Your task to perform on an android device: turn off smart reply in the gmail app Image 0: 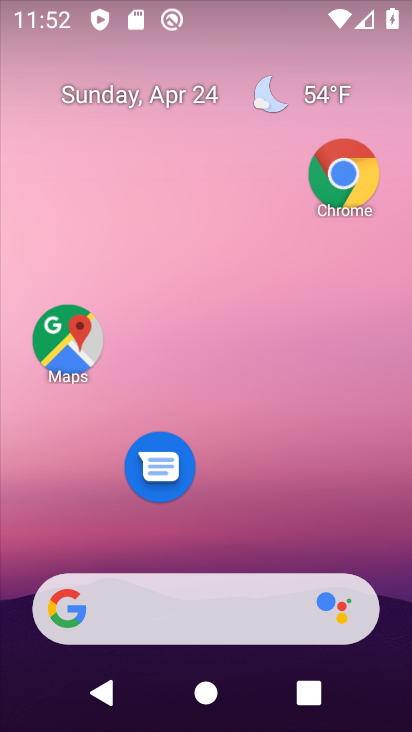
Step 0: drag from (221, 519) to (248, 139)
Your task to perform on an android device: turn off smart reply in the gmail app Image 1: 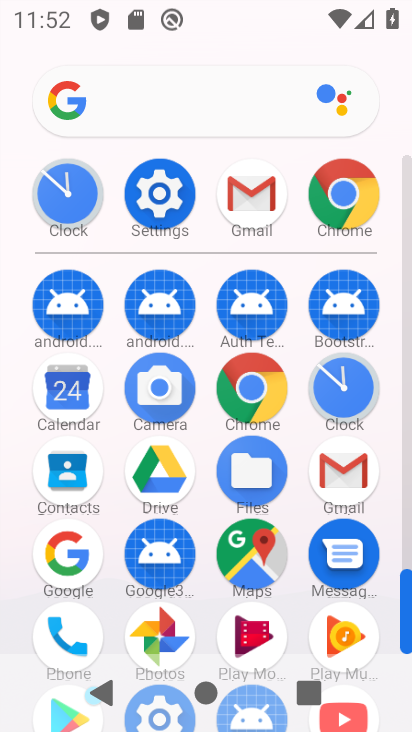
Step 1: click (338, 462)
Your task to perform on an android device: turn off smart reply in the gmail app Image 2: 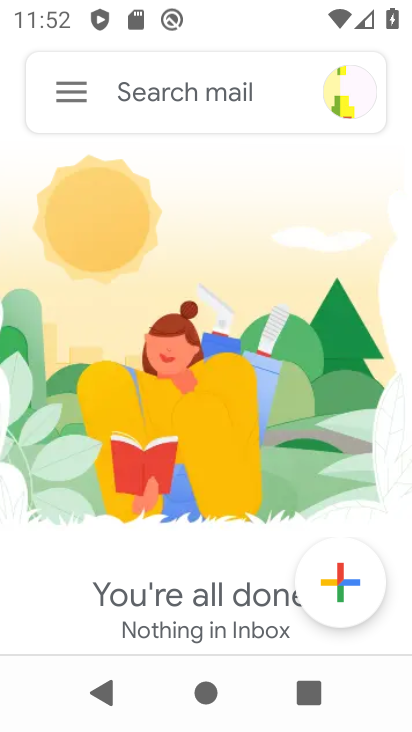
Step 2: drag from (111, 563) to (264, 157)
Your task to perform on an android device: turn off smart reply in the gmail app Image 3: 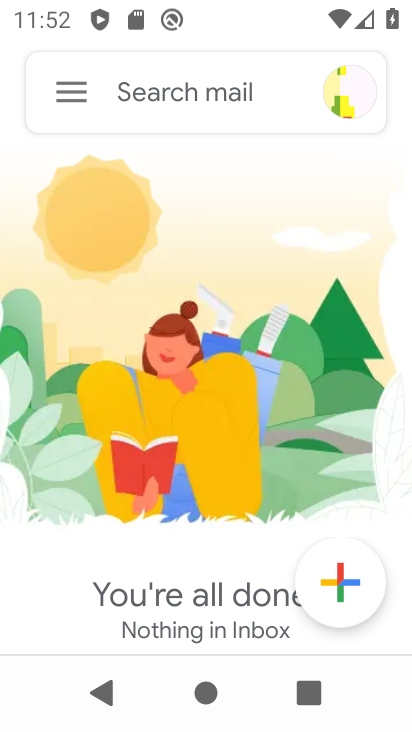
Step 3: click (78, 85)
Your task to perform on an android device: turn off smart reply in the gmail app Image 4: 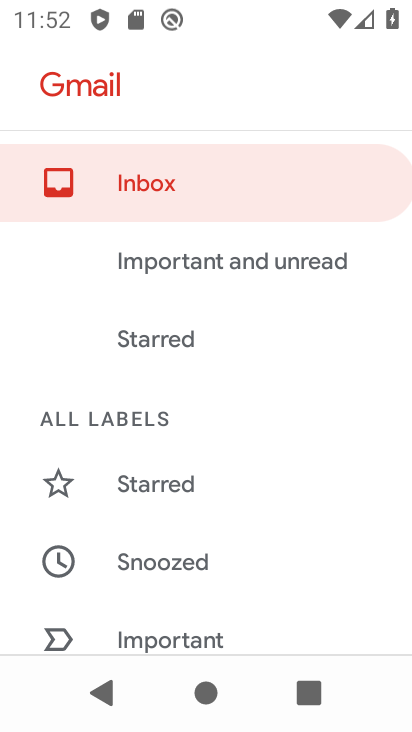
Step 4: drag from (203, 477) to (242, 123)
Your task to perform on an android device: turn off smart reply in the gmail app Image 5: 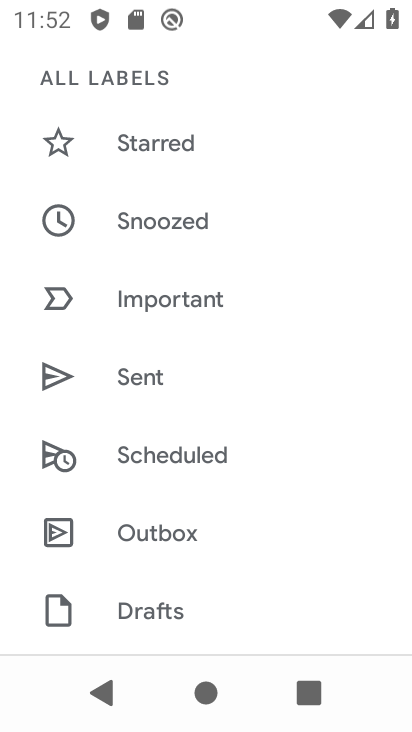
Step 5: drag from (196, 575) to (320, 105)
Your task to perform on an android device: turn off smart reply in the gmail app Image 6: 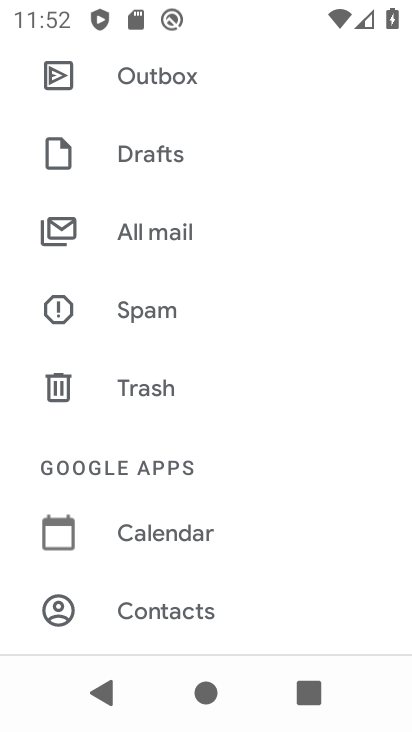
Step 6: drag from (181, 541) to (270, 50)
Your task to perform on an android device: turn off smart reply in the gmail app Image 7: 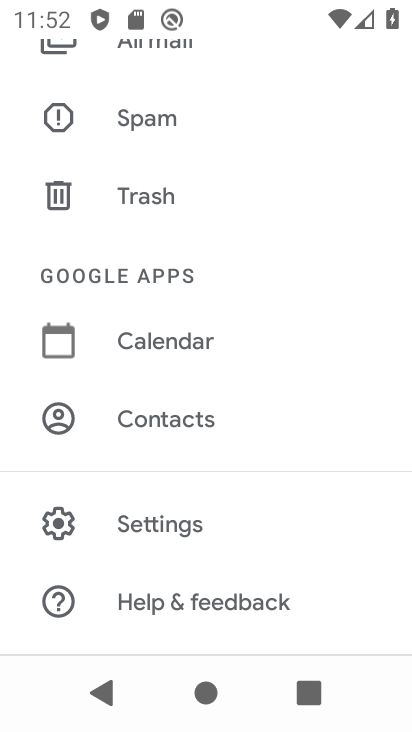
Step 7: click (175, 532)
Your task to perform on an android device: turn off smart reply in the gmail app Image 8: 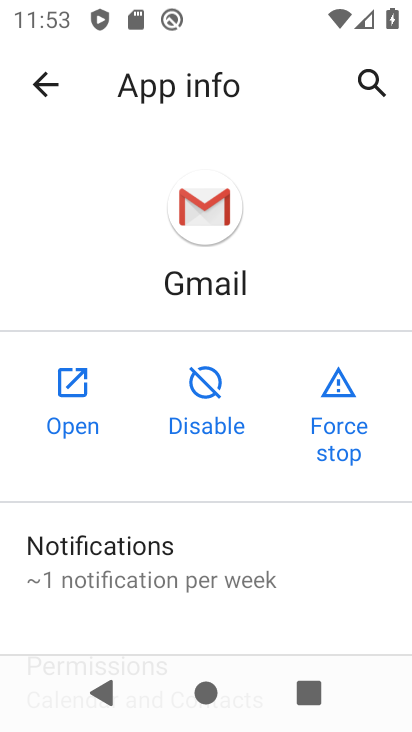
Step 8: click (63, 398)
Your task to perform on an android device: turn off smart reply in the gmail app Image 9: 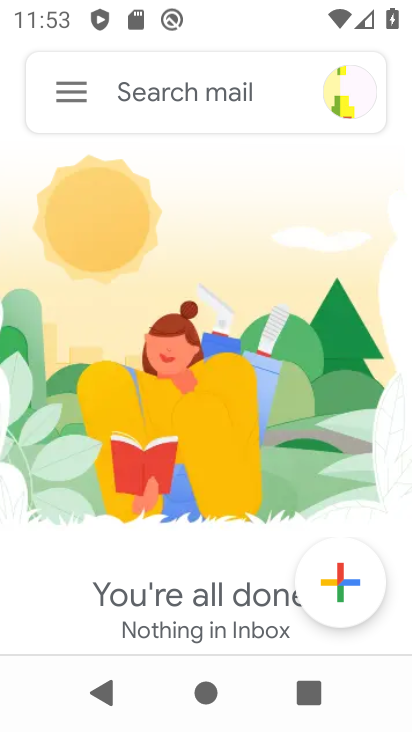
Step 9: drag from (194, 457) to (204, 115)
Your task to perform on an android device: turn off smart reply in the gmail app Image 10: 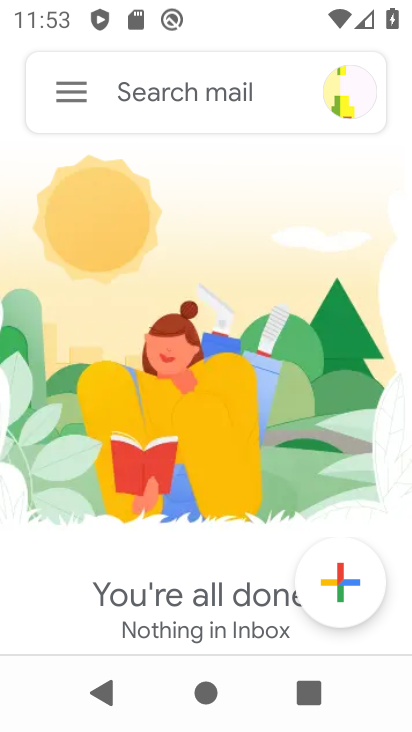
Step 10: click (57, 110)
Your task to perform on an android device: turn off smart reply in the gmail app Image 11: 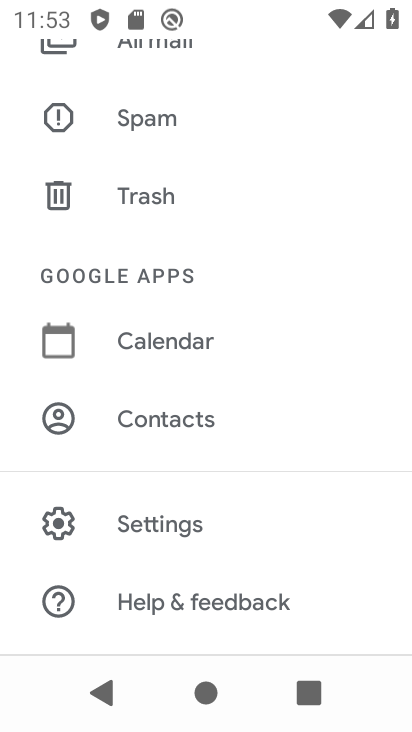
Step 11: click (180, 518)
Your task to perform on an android device: turn off smart reply in the gmail app Image 12: 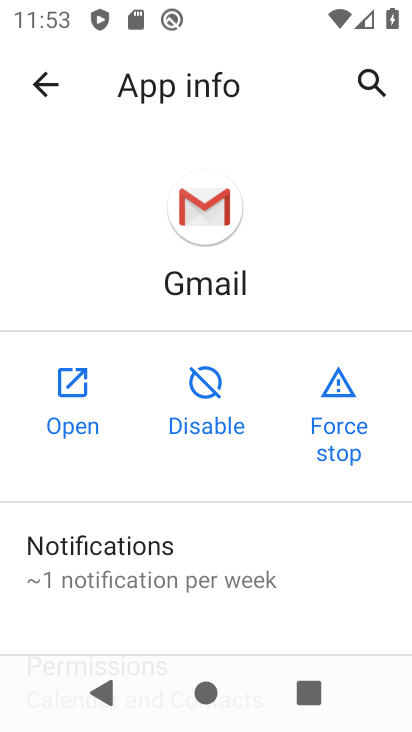
Step 12: click (68, 385)
Your task to perform on an android device: turn off smart reply in the gmail app Image 13: 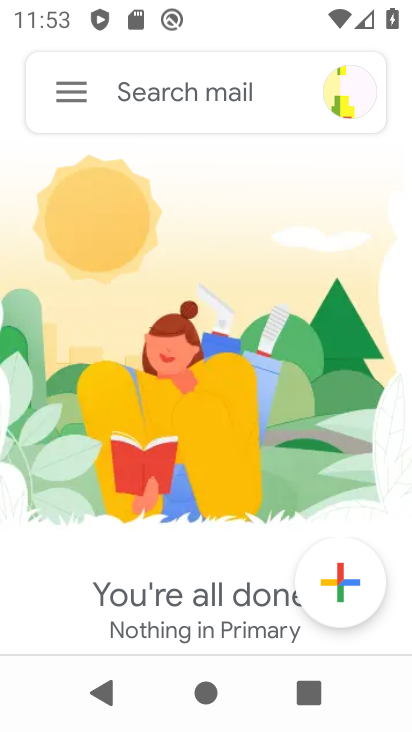
Step 13: click (67, 99)
Your task to perform on an android device: turn off smart reply in the gmail app Image 14: 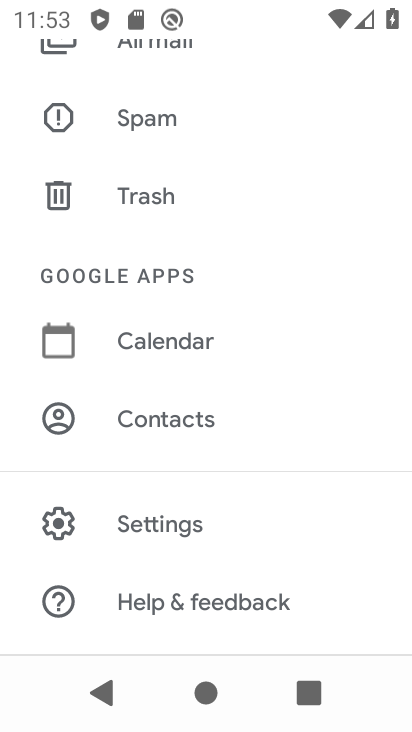
Step 14: click (191, 522)
Your task to perform on an android device: turn off smart reply in the gmail app Image 15: 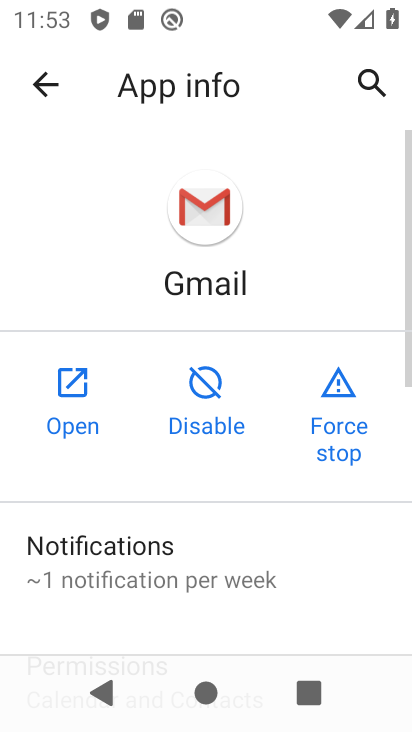
Step 15: click (61, 395)
Your task to perform on an android device: turn off smart reply in the gmail app Image 16: 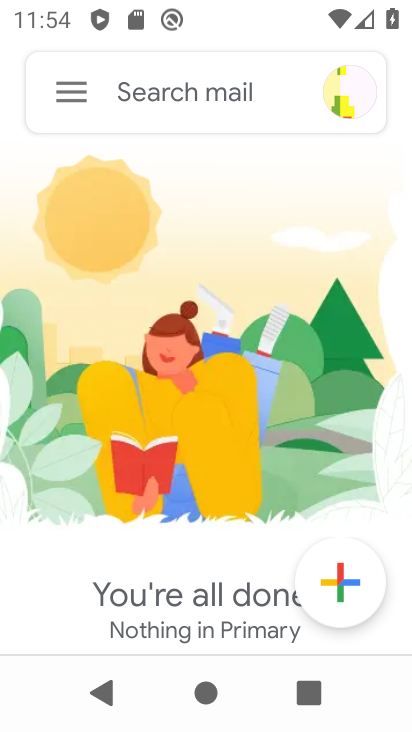
Step 16: click (84, 100)
Your task to perform on an android device: turn off smart reply in the gmail app Image 17: 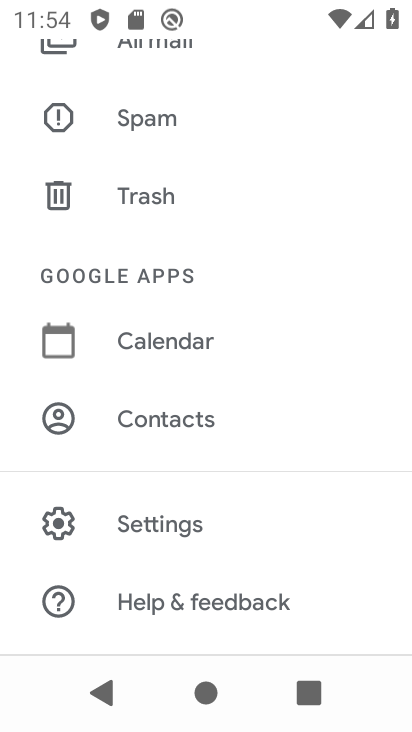
Step 17: click (179, 522)
Your task to perform on an android device: turn off smart reply in the gmail app Image 18: 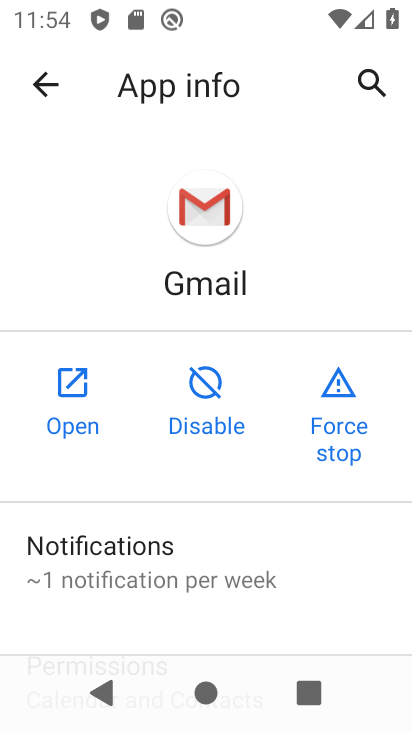
Step 18: click (65, 384)
Your task to perform on an android device: turn off smart reply in the gmail app Image 19: 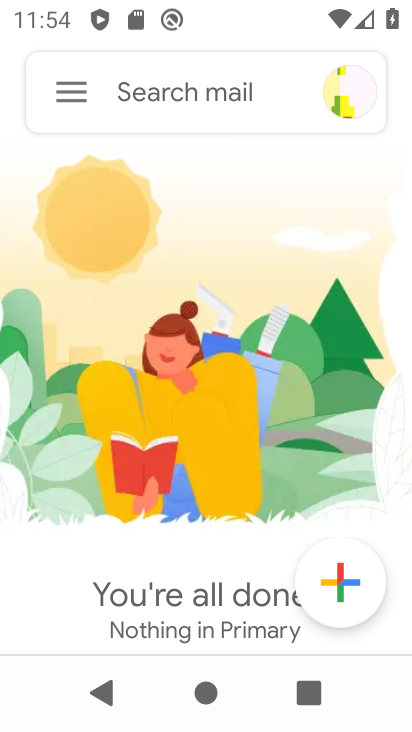
Step 19: drag from (246, 478) to (215, 191)
Your task to perform on an android device: turn off smart reply in the gmail app Image 20: 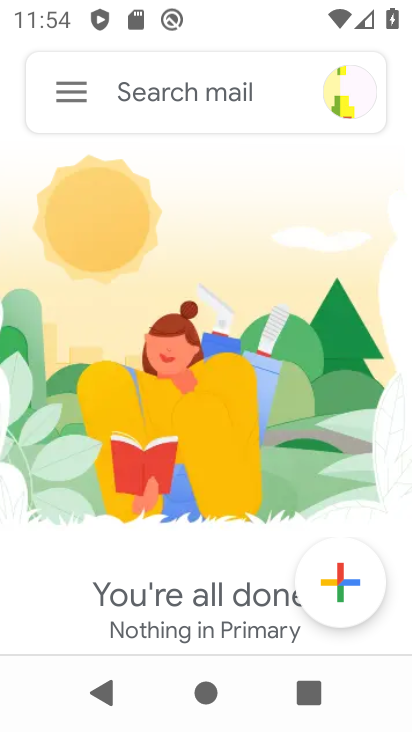
Step 20: click (48, 92)
Your task to perform on an android device: turn off smart reply in the gmail app Image 21: 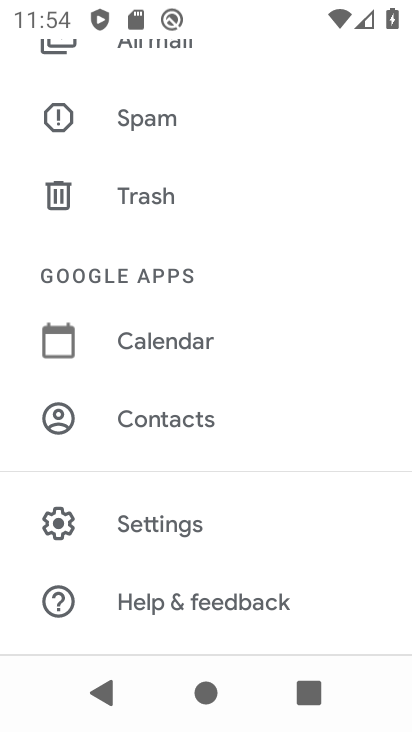
Step 21: click (209, 520)
Your task to perform on an android device: turn off smart reply in the gmail app Image 22: 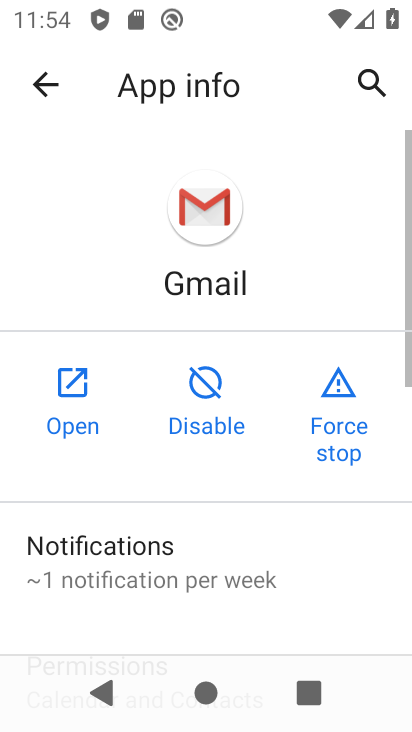
Step 22: drag from (215, 507) to (224, 217)
Your task to perform on an android device: turn off smart reply in the gmail app Image 23: 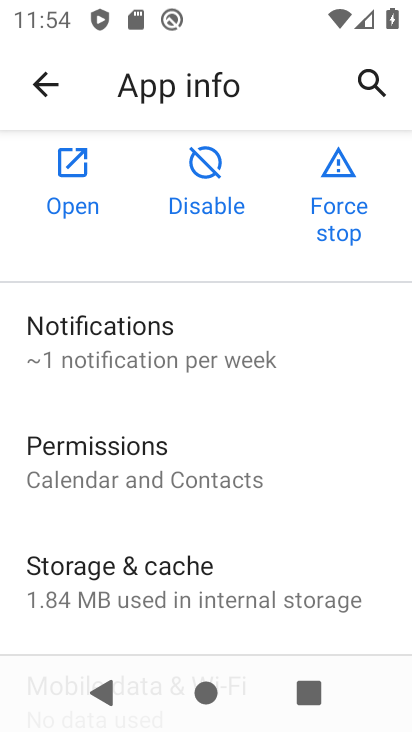
Step 23: click (53, 180)
Your task to perform on an android device: turn off smart reply in the gmail app Image 24: 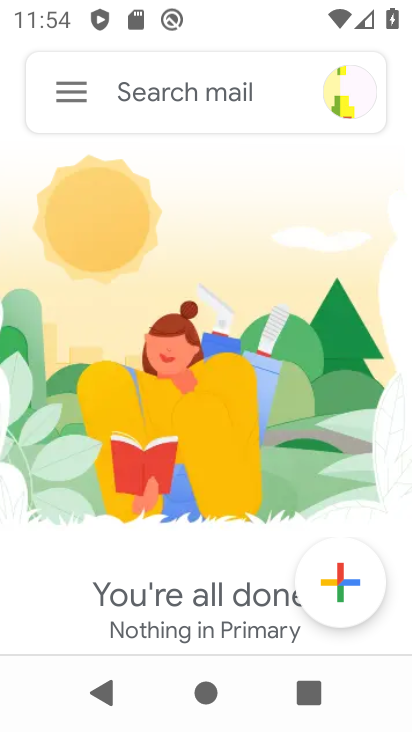
Step 24: click (68, 90)
Your task to perform on an android device: turn off smart reply in the gmail app Image 25: 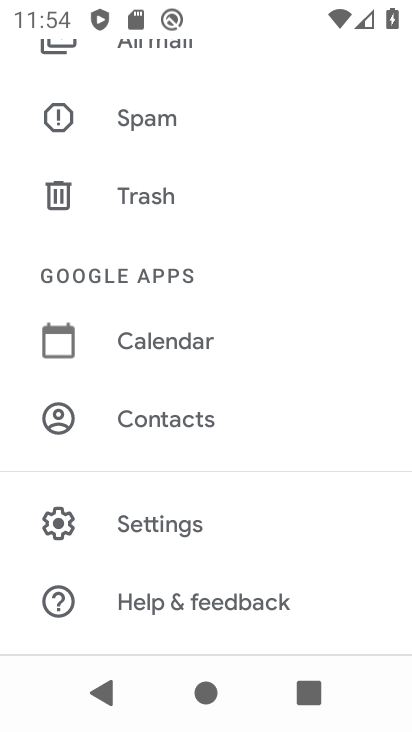
Step 25: click (163, 530)
Your task to perform on an android device: turn off smart reply in the gmail app Image 26: 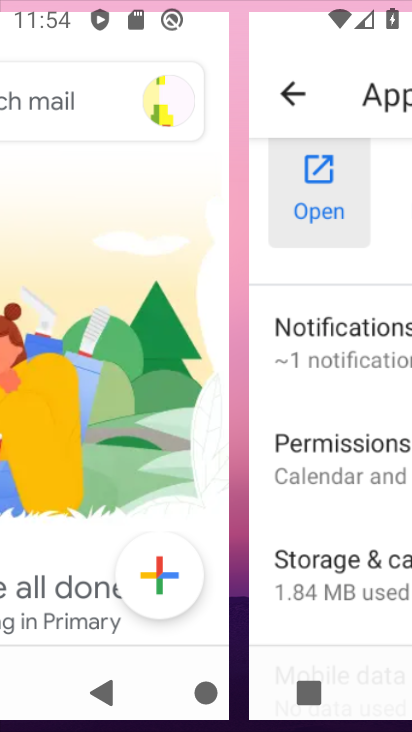
Step 26: drag from (163, 530) to (207, 45)
Your task to perform on an android device: turn off smart reply in the gmail app Image 27: 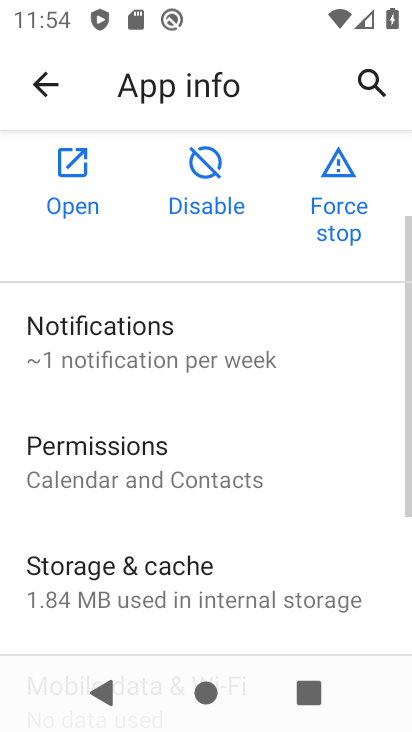
Step 27: click (84, 173)
Your task to perform on an android device: turn off smart reply in the gmail app Image 28: 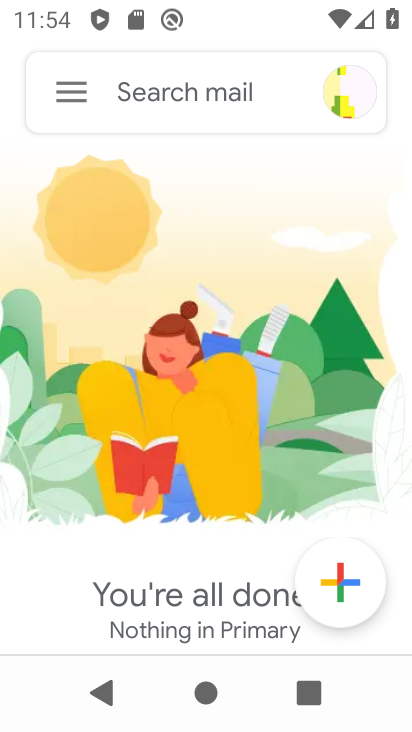
Step 28: click (81, 104)
Your task to perform on an android device: turn off smart reply in the gmail app Image 29: 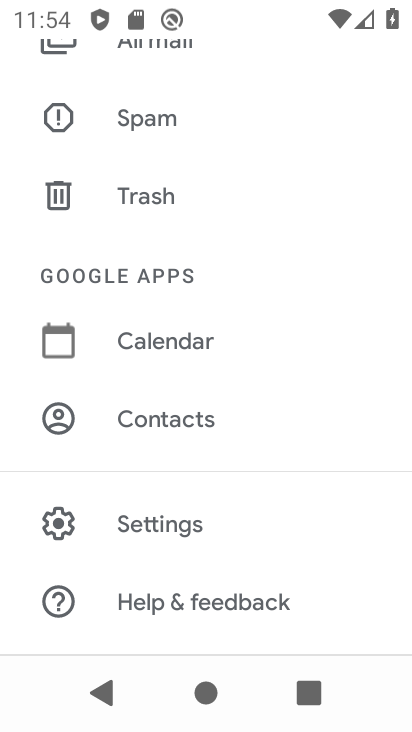
Step 29: click (200, 507)
Your task to perform on an android device: turn off smart reply in the gmail app Image 30: 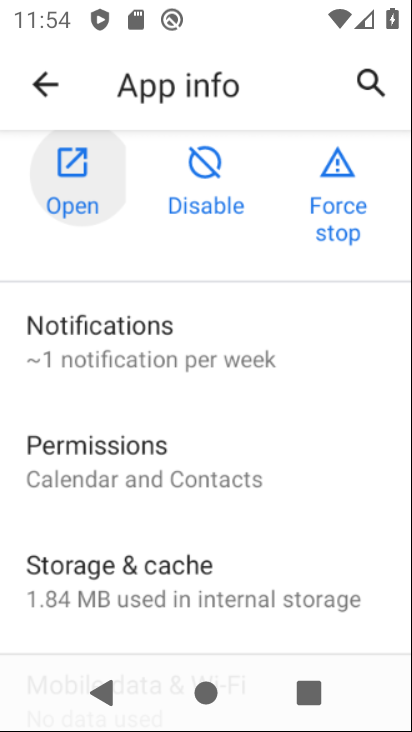
Step 30: drag from (218, 495) to (252, 111)
Your task to perform on an android device: turn off smart reply in the gmail app Image 31: 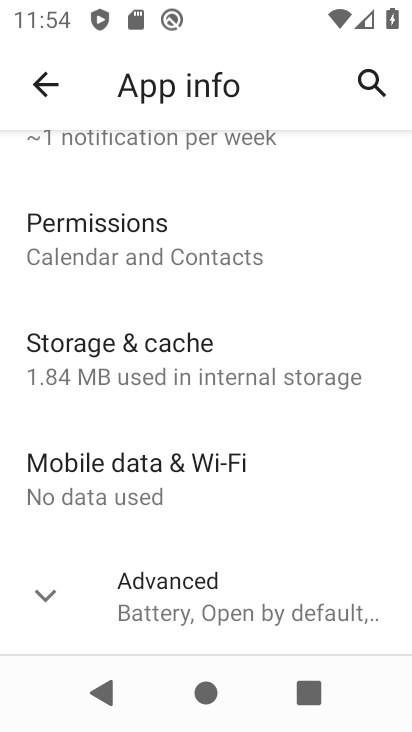
Step 31: drag from (93, 192) to (338, 701)
Your task to perform on an android device: turn off smart reply in the gmail app Image 32: 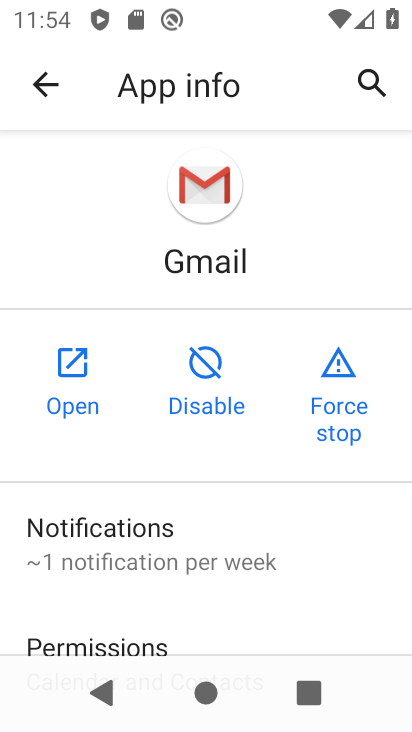
Step 32: click (53, 394)
Your task to perform on an android device: turn off smart reply in the gmail app Image 33: 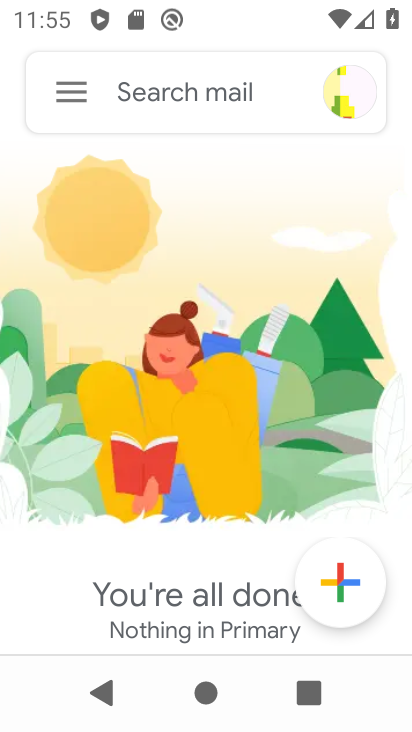
Step 33: click (46, 78)
Your task to perform on an android device: turn off smart reply in the gmail app Image 34: 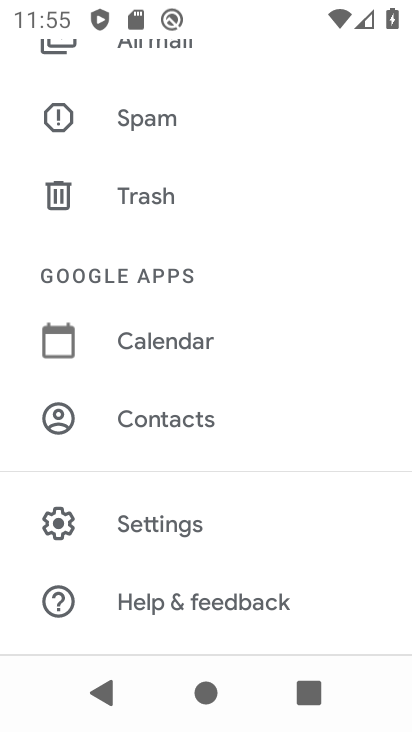
Step 34: click (179, 510)
Your task to perform on an android device: turn off smart reply in the gmail app Image 35: 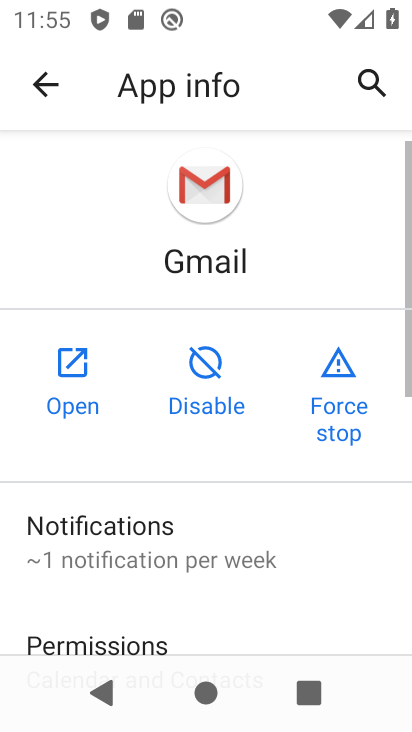
Step 35: click (49, 362)
Your task to perform on an android device: turn off smart reply in the gmail app Image 36: 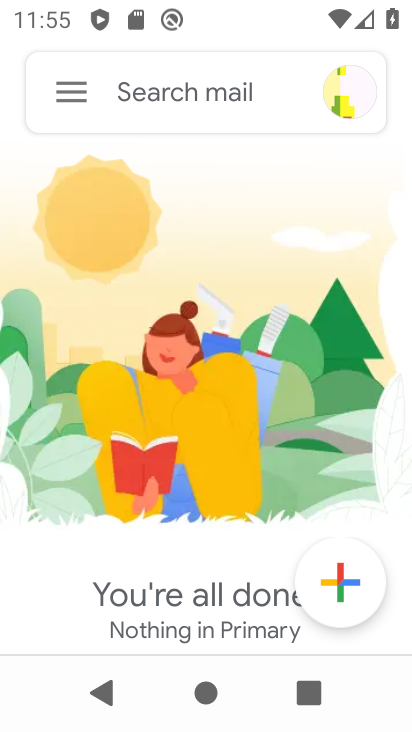
Step 36: task complete